Your task to perform on an android device: turn notification dots on Image 0: 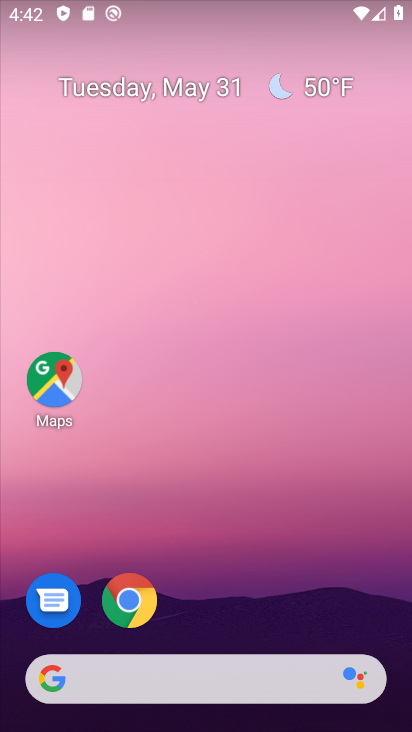
Step 0: drag from (271, 604) to (304, 28)
Your task to perform on an android device: turn notification dots on Image 1: 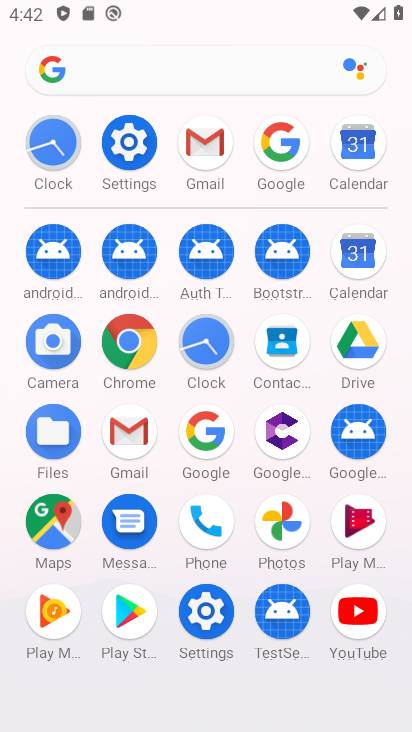
Step 1: click (128, 143)
Your task to perform on an android device: turn notification dots on Image 2: 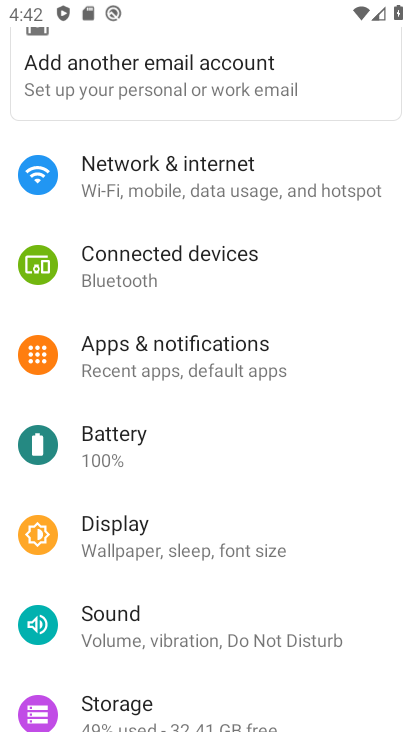
Step 2: click (180, 351)
Your task to perform on an android device: turn notification dots on Image 3: 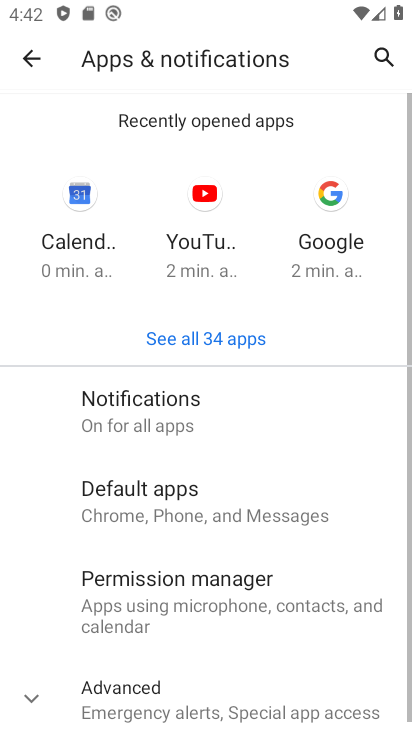
Step 3: click (145, 407)
Your task to perform on an android device: turn notification dots on Image 4: 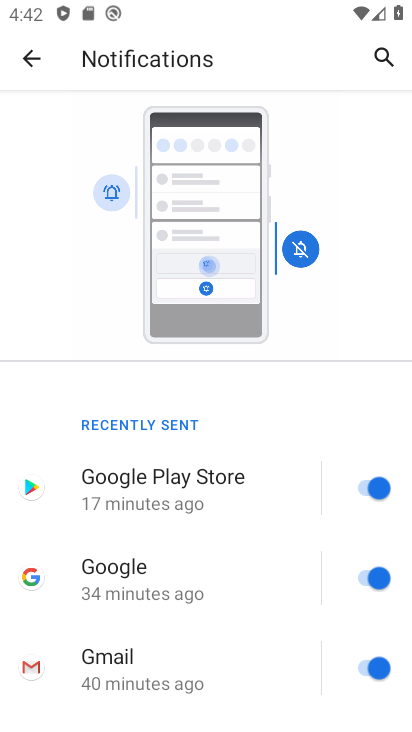
Step 4: drag from (203, 576) to (279, 94)
Your task to perform on an android device: turn notification dots on Image 5: 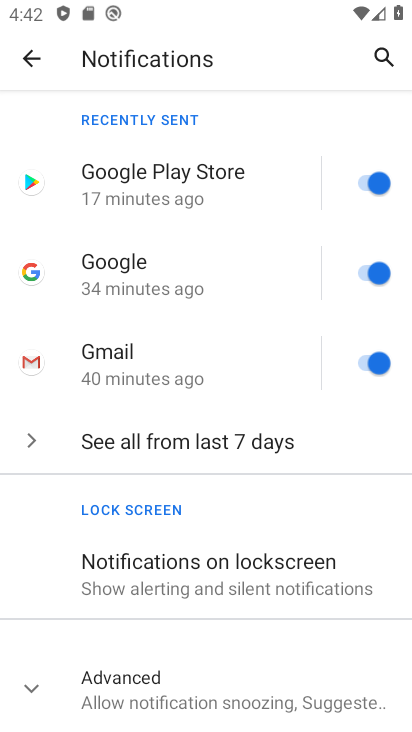
Step 5: drag from (211, 622) to (301, 370)
Your task to perform on an android device: turn notification dots on Image 6: 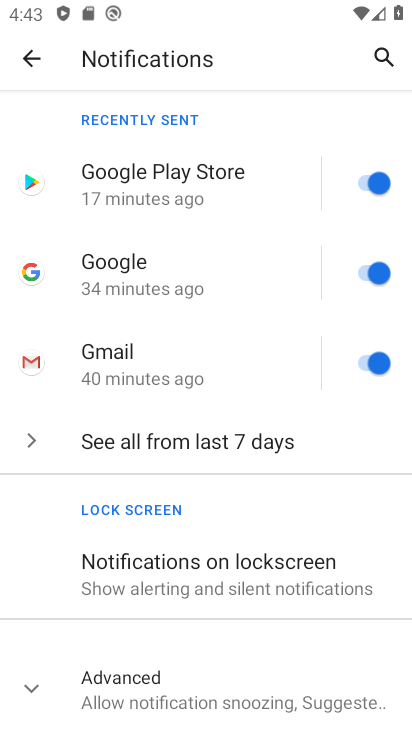
Step 6: click (220, 693)
Your task to perform on an android device: turn notification dots on Image 7: 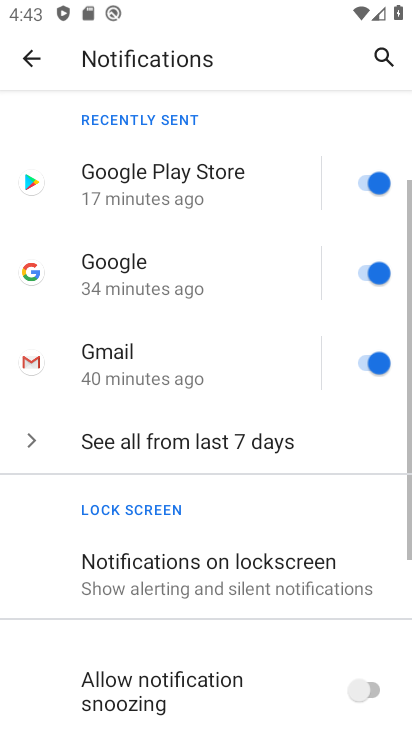
Step 7: drag from (220, 693) to (303, 121)
Your task to perform on an android device: turn notification dots on Image 8: 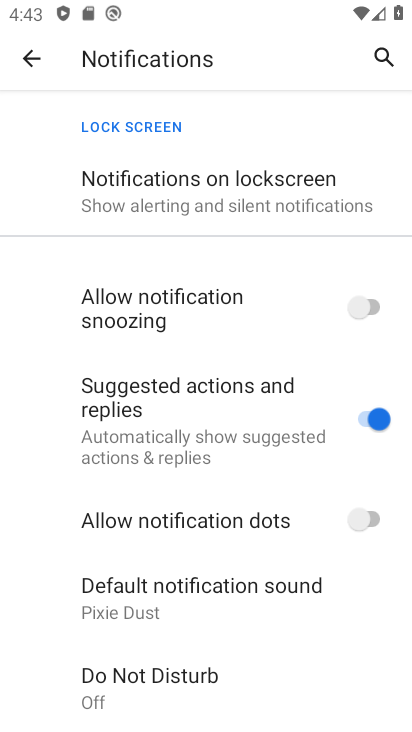
Step 8: click (362, 523)
Your task to perform on an android device: turn notification dots on Image 9: 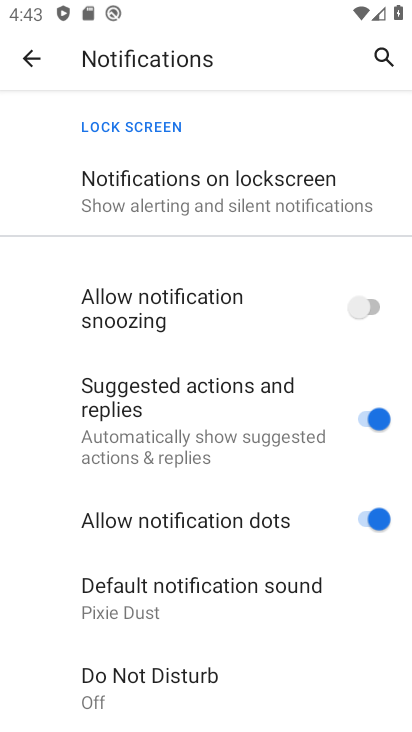
Step 9: task complete